Your task to perform on an android device: make emails show in primary in the gmail app Image 0: 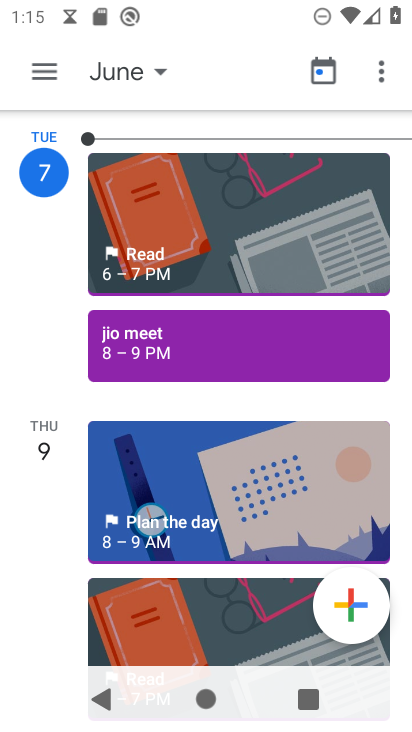
Step 0: press home button
Your task to perform on an android device: make emails show in primary in the gmail app Image 1: 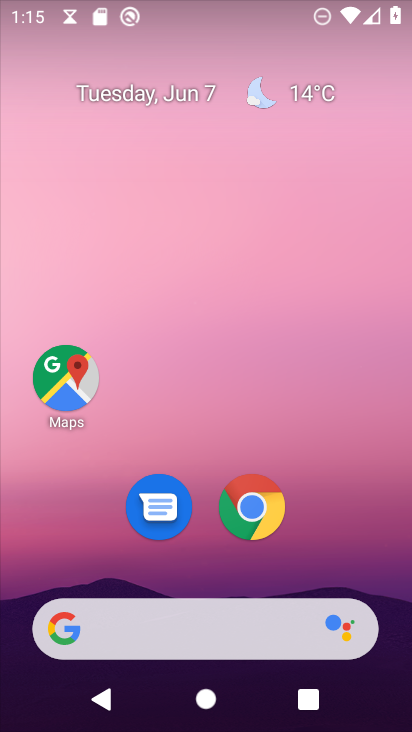
Step 1: drag from (321, 553) to (314, 0)
Your task to perform on an android device: make emails show in primary in the gmail app Image 2: 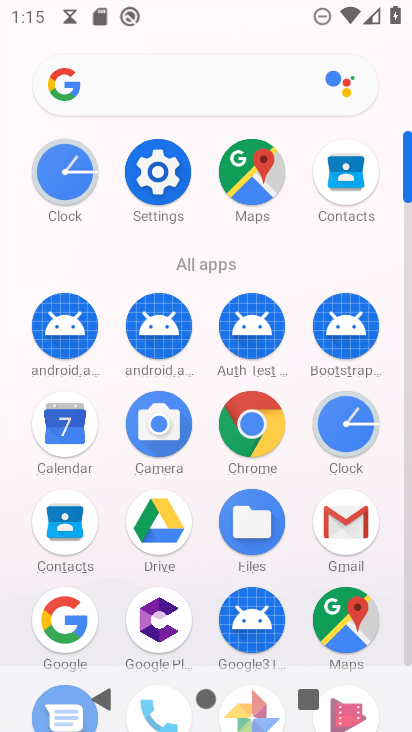
Step 2: click (356, 516)
Your task to perform on an android device: make emails show in primary in the gmail app Image 3: 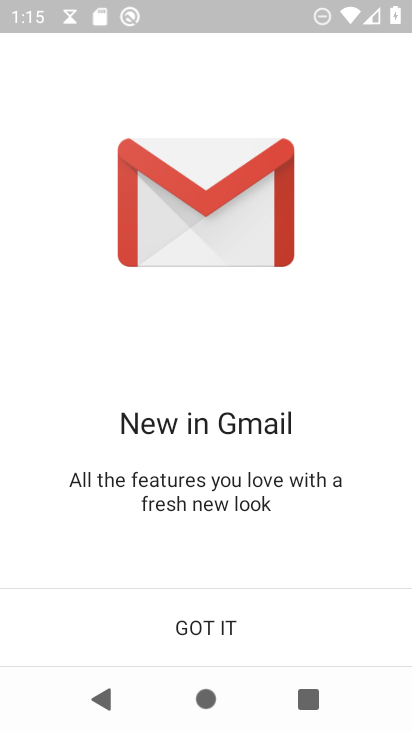
Step 3: click (226, 628)
Your task to perform on an android device: make emails show in primary in the gmail app Image 4: 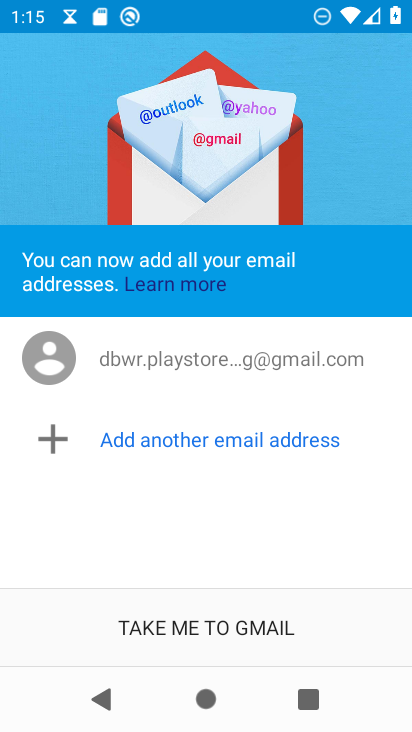
Step 4: click (156, 628)
Your task to perform on an android device: make emails show in primary in the gmail app Image 5: 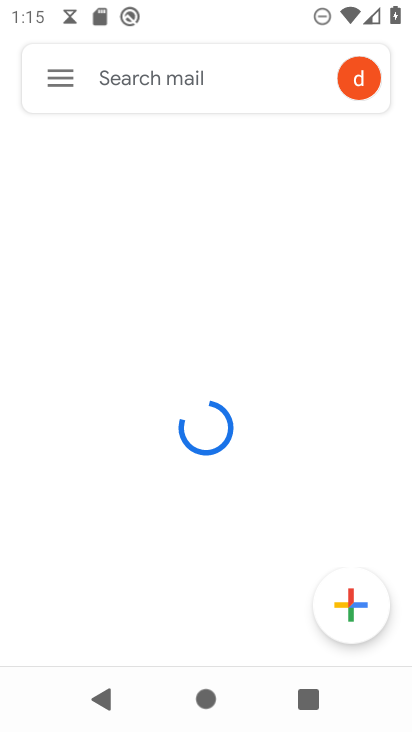
Step 5: click (57, 67)
Your task to perform on an android device: make emails show in primary in the gmail app Image 6: 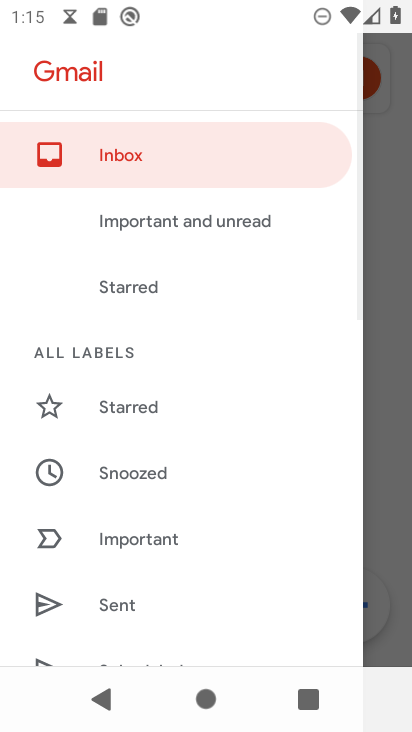
Step 6: drag from (151, 569) to (164, 129)
Your task to perform on an android device: make emails show in primary in the gmail app Image 7: 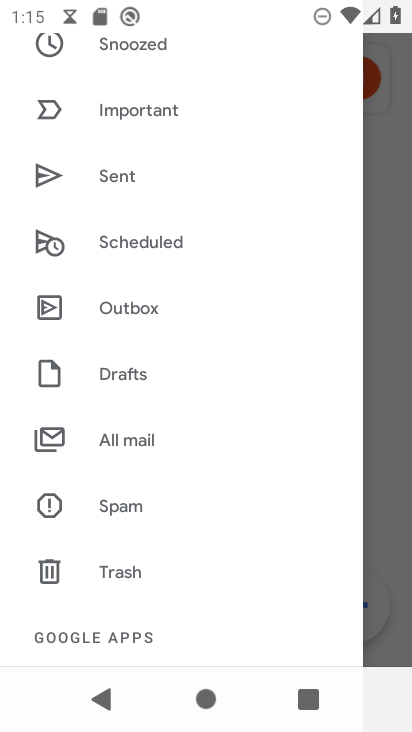
Step 7: drag from (154, 587) to (175, 132)
Your task to perform on an android device: make emails show in primary in the gmail app Image 8: 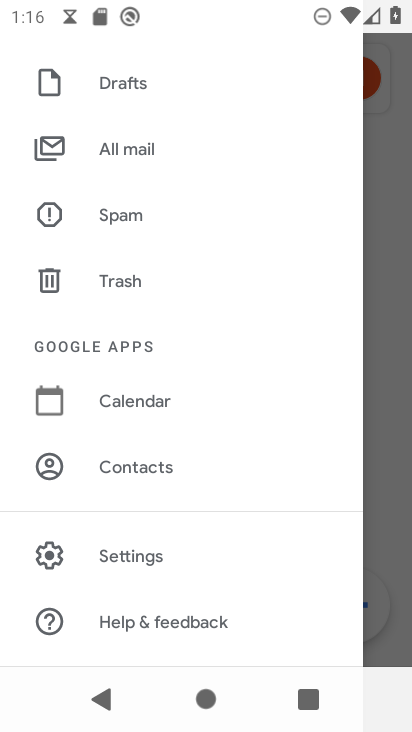
Step 8: click (159, 551)
Your task to perform on an android device: make emails show in primary in the gmail app Image 9: 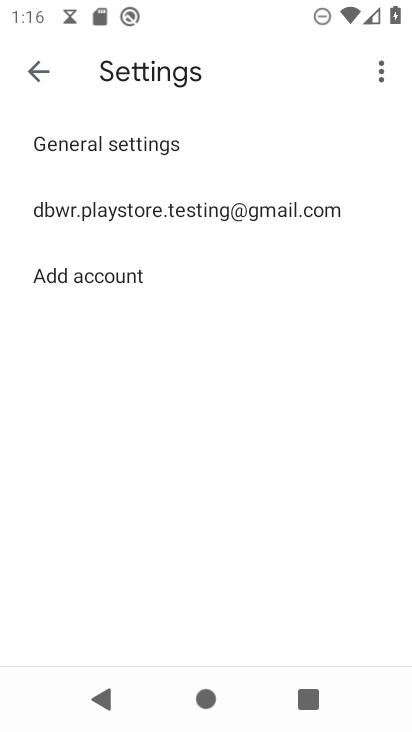
Step 9: click (242, 221)
Your task to perform on an android device: make emails show in primary in the gmail app Image 10: 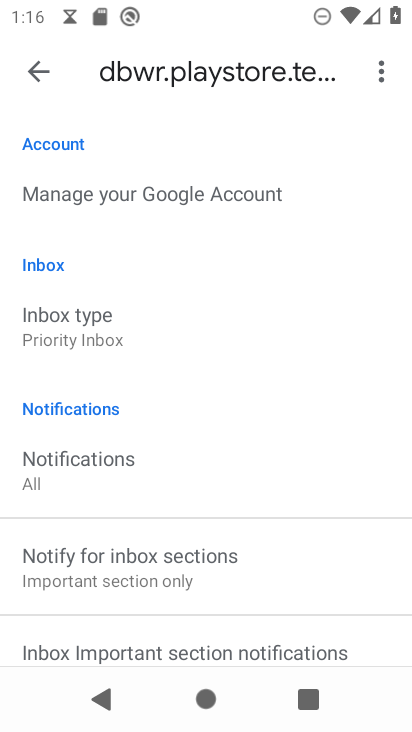
Step 10: click (60, 341)
Your task to perform on an android device: make emails show in primary in the gmail app Image 11: 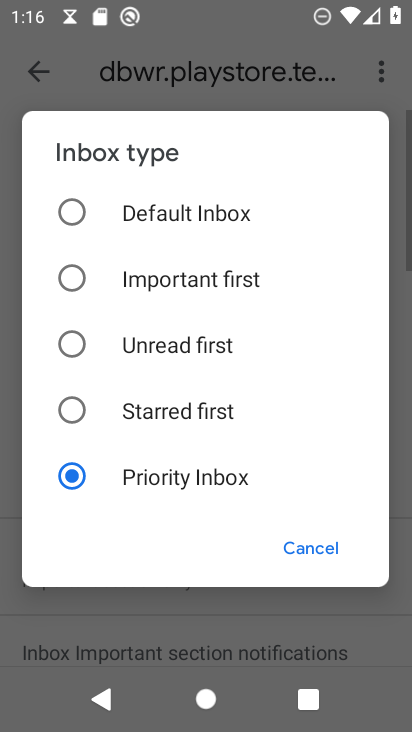
Step 11: click (169, 208)
Your task to perform on an android device: make emails show in primary in the gmail app Image 12: 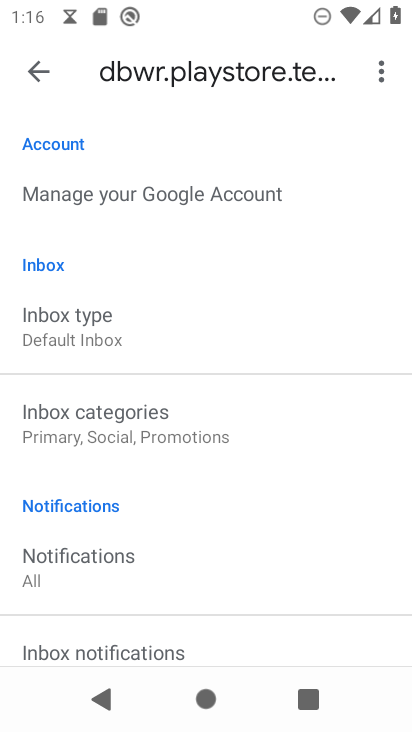
Step 12: task complete